Your task to perform on an android device: Go to ESPN.com Image 0: 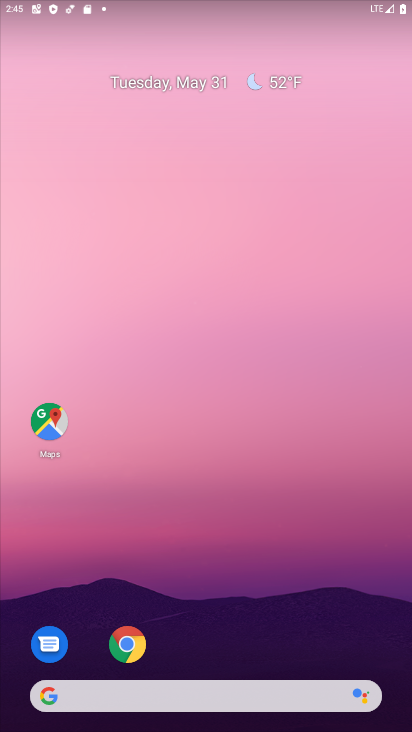
Step 0: click (242, 697)
Your task to perform on an android device: Go to ESPN.com Image 1: 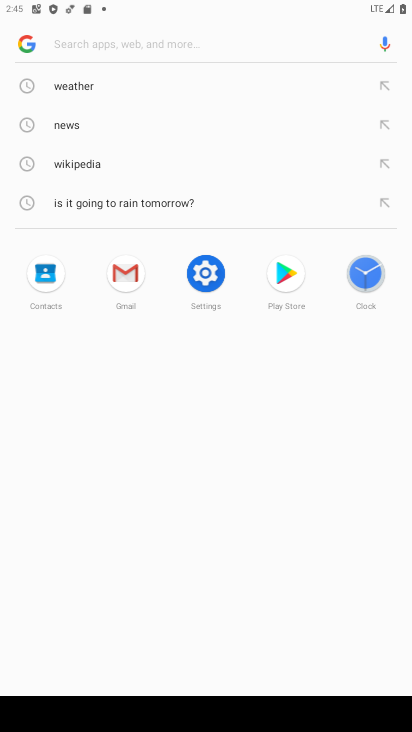
Step 1: type " ESPN.com"
Your task to perform on an android device: Go to ESPN.com Image 2: 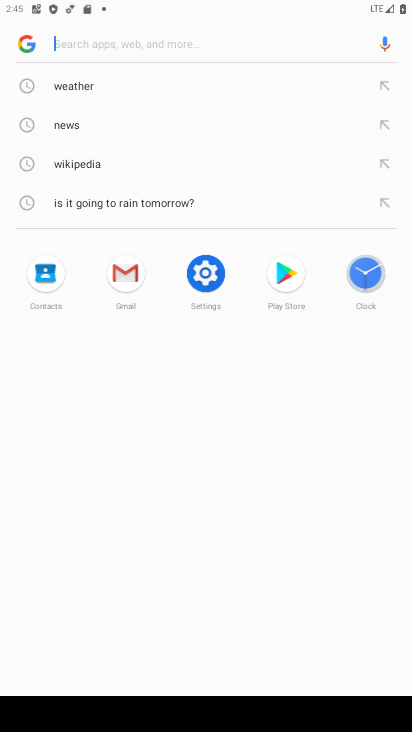
Step 2: click (120, 43)
Your task to perform on an android device: Go to ESPN.com Image 3: 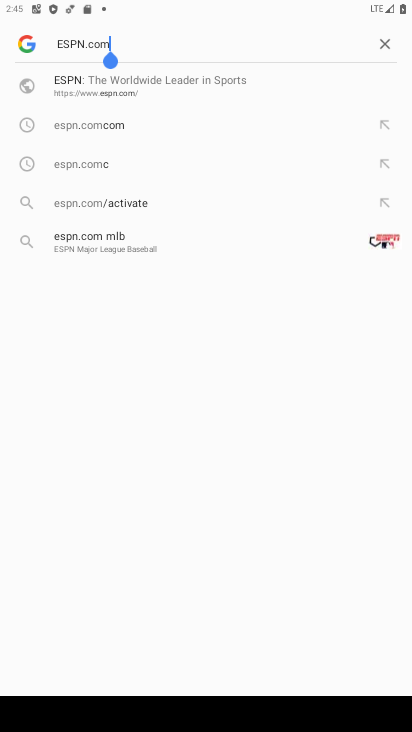
Step 3: click (124, 86)
Your task to perform on an android device: Go to ESPN.com Image 4: 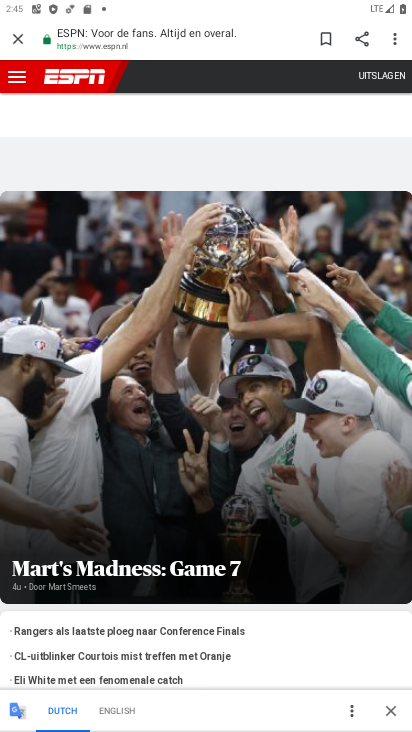
Step 4: task complete